Your task to perform on an android device: allow cookies in the chrome app Image 0: 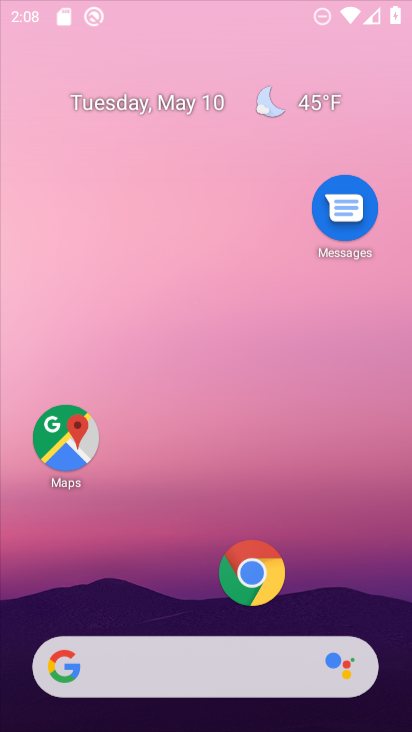
Step 0: click (252, 243)
Your task to perform on an android device: allow cookies in the chrome app Image 1: 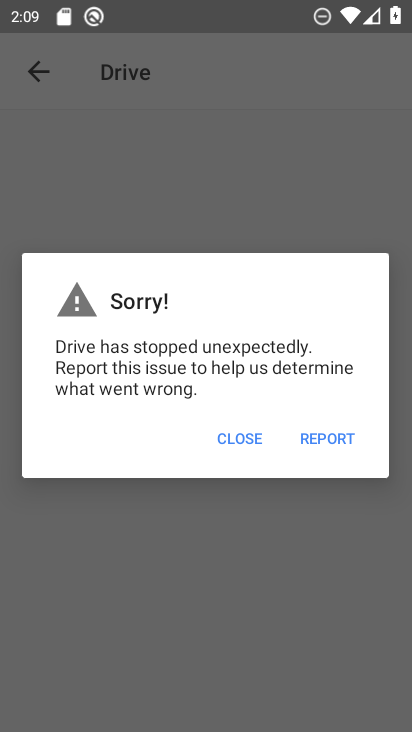
Step 1: press home button
Your task to perform on an android device: allow cookies in the chrome app Image 2: 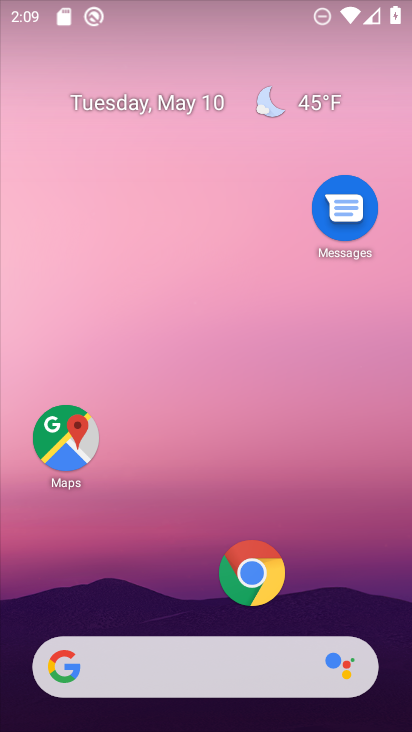
Step 2: drag from (189, 615) to (227, 175)
Your task to perform on an android device: allow cookies in the chrome app Image 3: 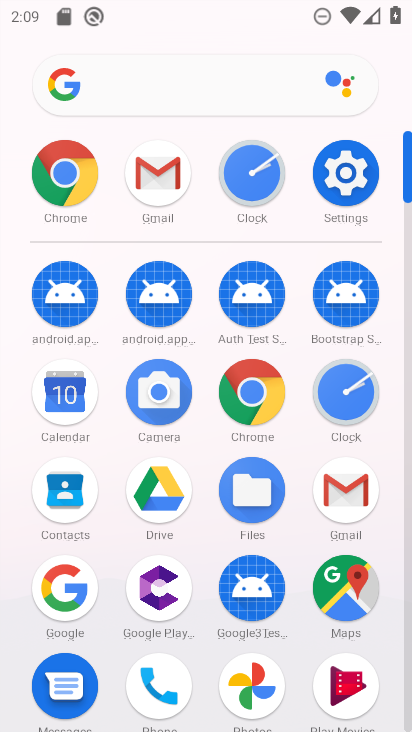
Step 3: drag from (213, 647) to (233, 331)
Your task to perform on an android device: allow cookies in the chrome app Image 4: 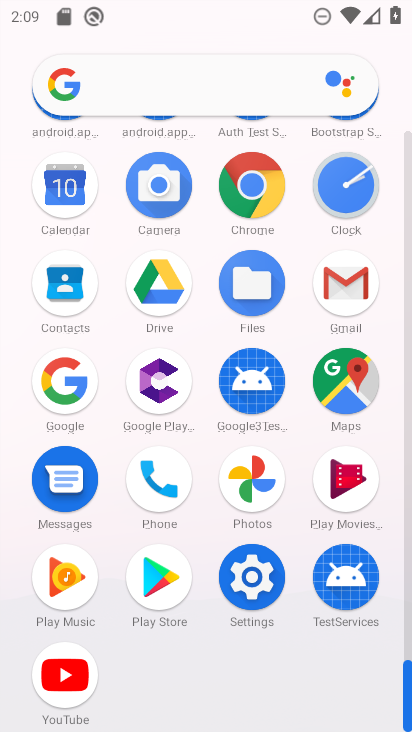
Step 4: click (257, 177)
Your task to perform on an android device: allow cookies in the chrome app Image 5: 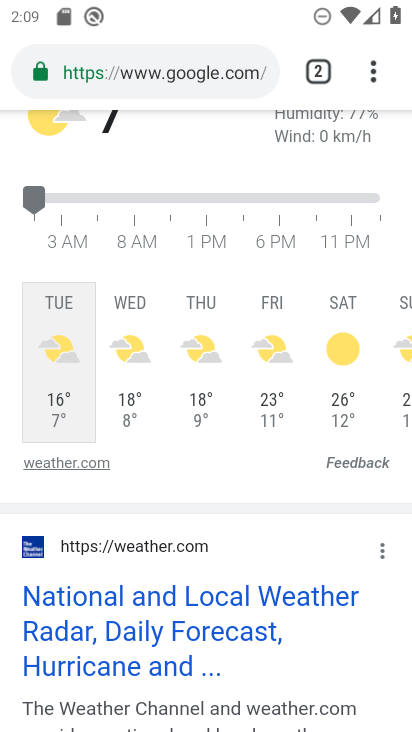
Step 5: drag from (249, 201) to (248, 574)
Your task to perform on an android device: allow cookies in the chrome app Image 6: 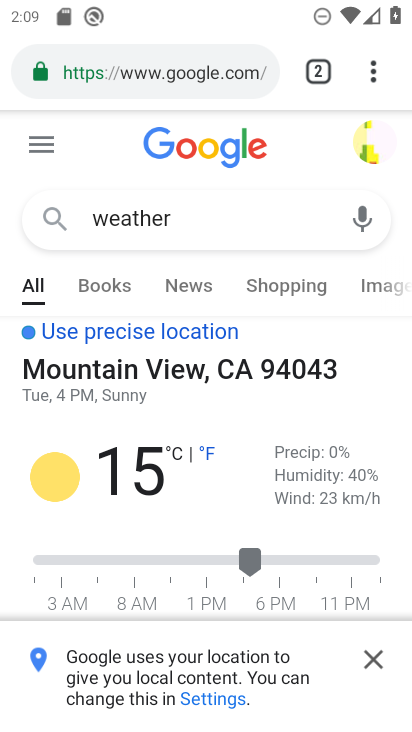
Step 6: drag from (236, 379) to (255, 645)
Your task to perform on an android device: allow cookies in the chrome app Image 7: 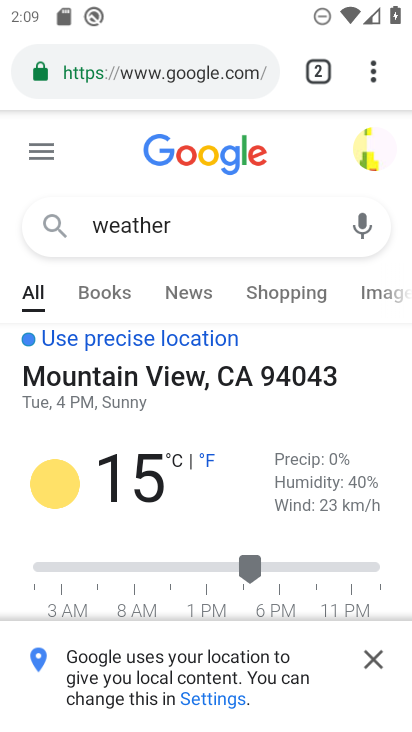
Step 7: drag from (239, 528) to (276, 285)
Your task to perform on an android device: allow cookies in the chrome app Image 8: 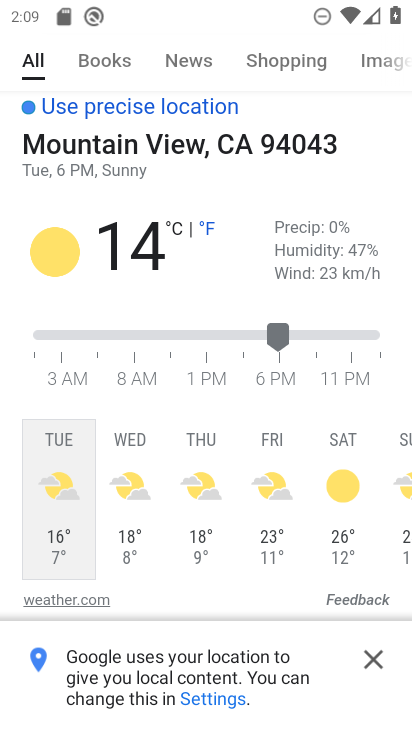
Step 8: drag from (223, 533) to (253, 361)
Your task to perform on an android device: allow cookies in the chrome app Image 9: 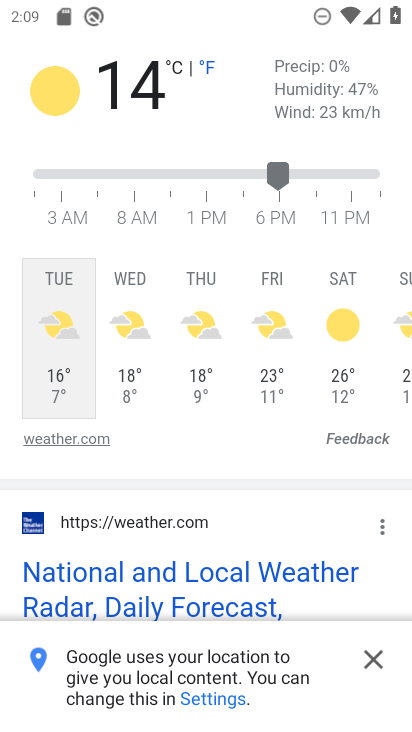
Step 9: click (216, 489)
Your task to perform on an android device: allow cookies in the chrome app Image 10: 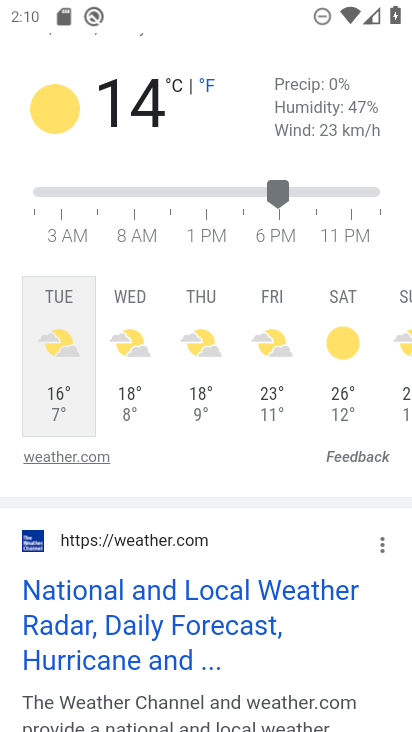
Step 10: drag from (235, 565) to (258, 182)
Your task to perform on an android device: allow cookies in the chrome app Image 11: 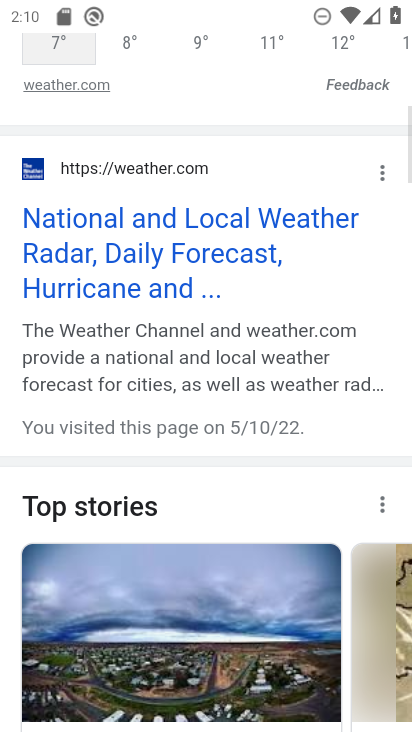
Step 11: drag from (229, 124) to (313, 729)
Your task to perform on an android device: allow cookies in the chrome app Image 12: 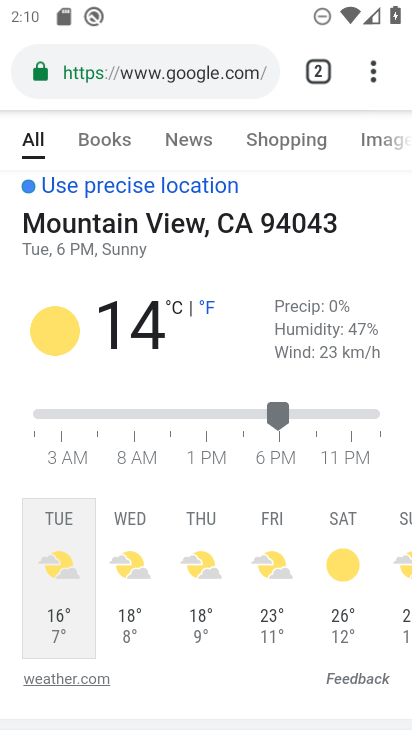
Step 12: click (378, 69)
Your task to perform on an android device: allow cookies in the chrome app Image 13: 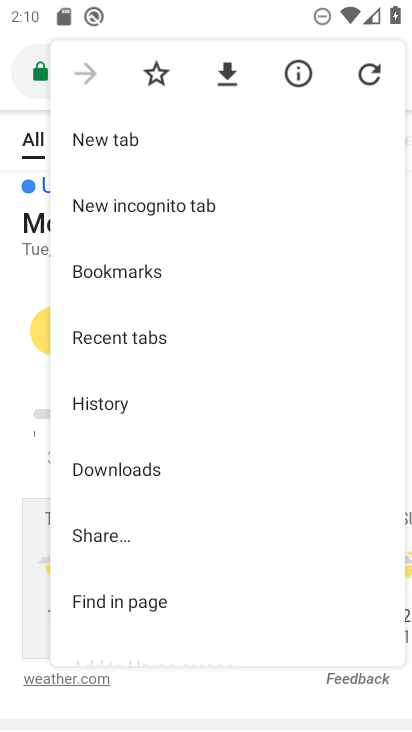
Step 13: drag from (236, 643) to (252, 253)
Your task to perform on an android device: allow cookies in the chrome app Image 14: 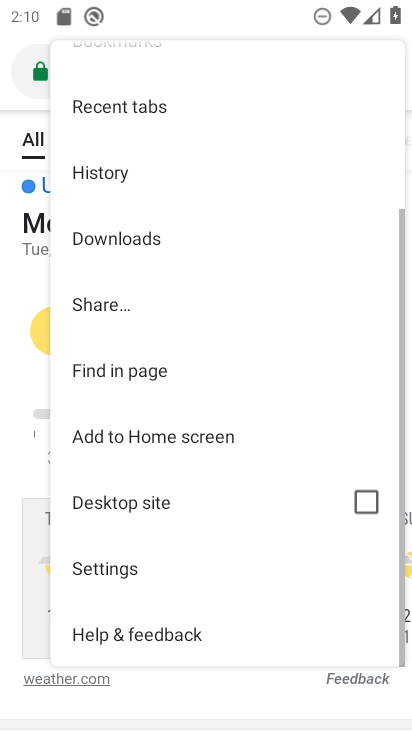
Step 14: click (155, 570)
Your task to perform on an android device: allow cookies in the chrome app Image 15: 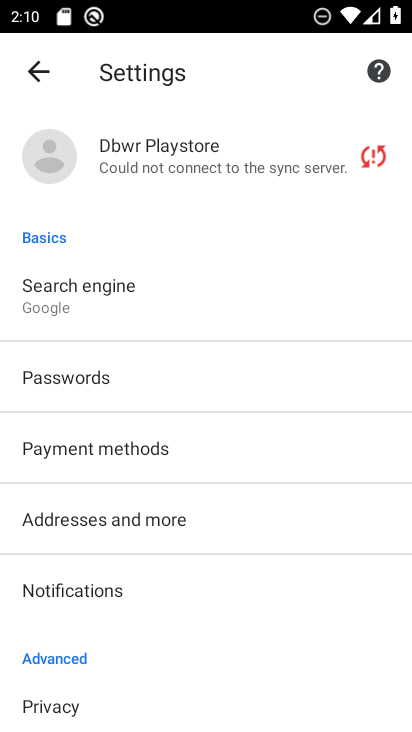
Step 15: drag from (196, 582) to (256, 257)
Your task to perform on an android device: allow cookies in the chrome app Image 16: 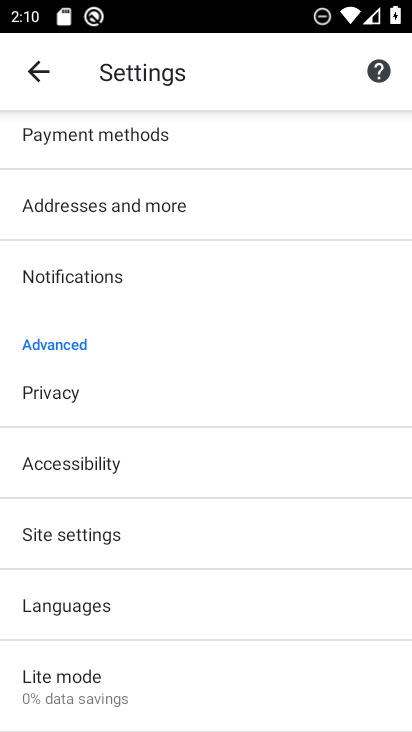
Step 16: drag from (184, 712) to (194, 266)
Your task to perform on an android device: allow cookies in the chrome app Image 17: 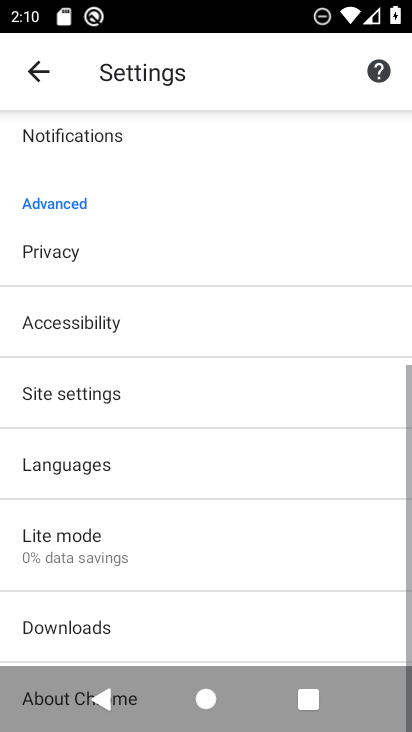
Step 17: drag from (160, 626) to (160, 312)
Your task to perform on an android device: allow cookies in the chrome app Image 18: 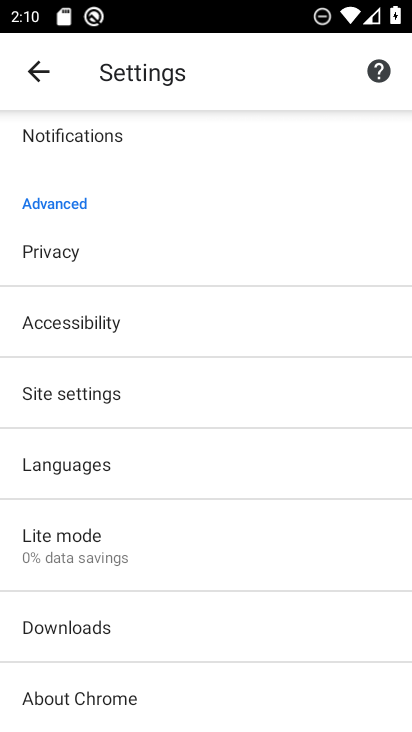
Step 18: drag from (157, 635) to (190, 448)
Your task to perform on an android device: allow cookies in the chrome app Image 19: 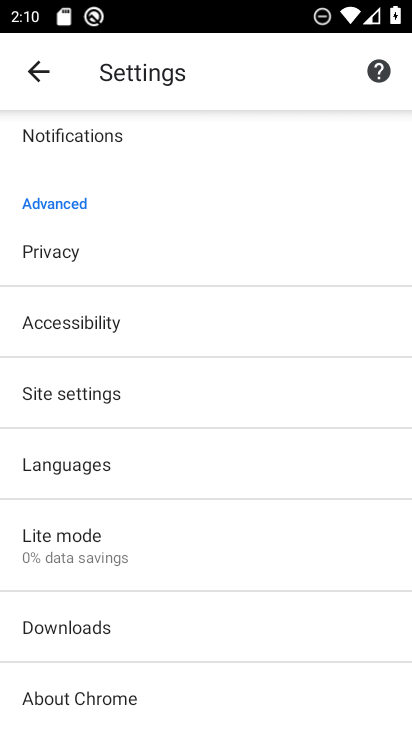
Step 19: drag from (181, 647) to (191, 421)
Your task to perform on an android device: allow cookies in the chrome app Image 20: 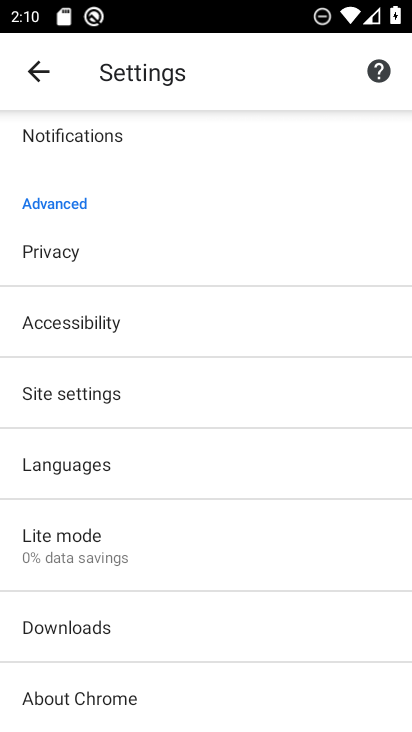
Step 20: drag from (186, 277) to (204, 565)
Your task to perform on an android device: allow cookies in the chrome app Image 21: 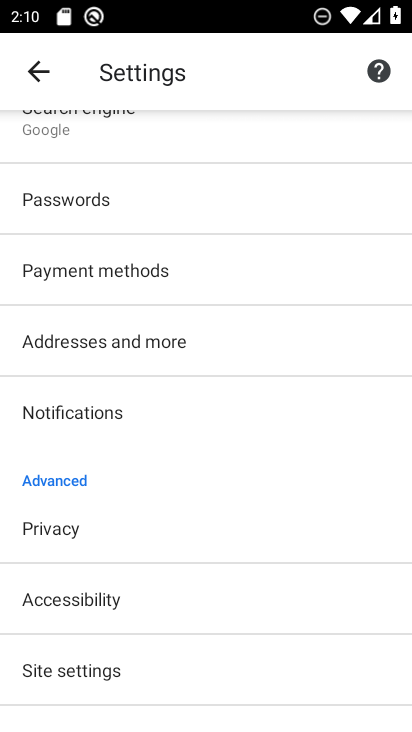
Step 21: click (96, 674)
Your task to perform on an android device: allow cookies in the chrome app Image 22: 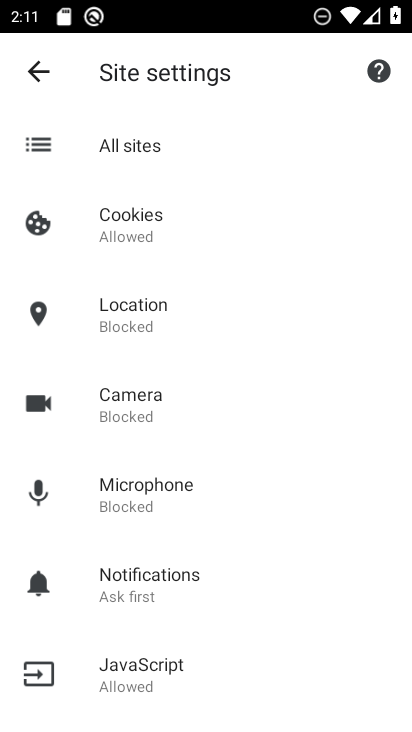
Step 22: click (203, 217)
Your task to perform on an android device: allow cookies in the chrome app Image 23: 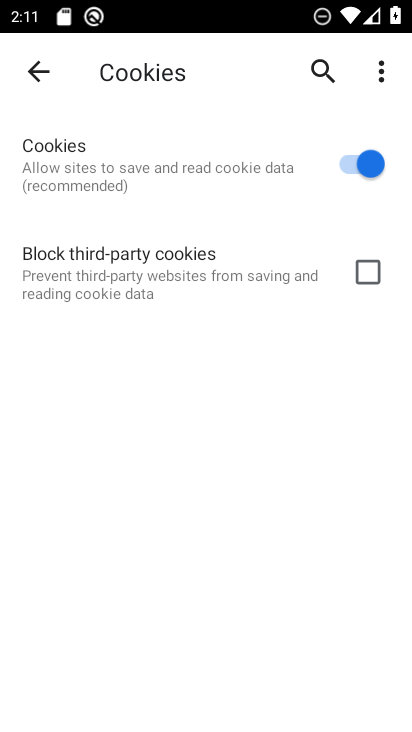
Step 23: task complete